Your task to perform on an android device: remove spam from my inbox in the gmail app Image 0: 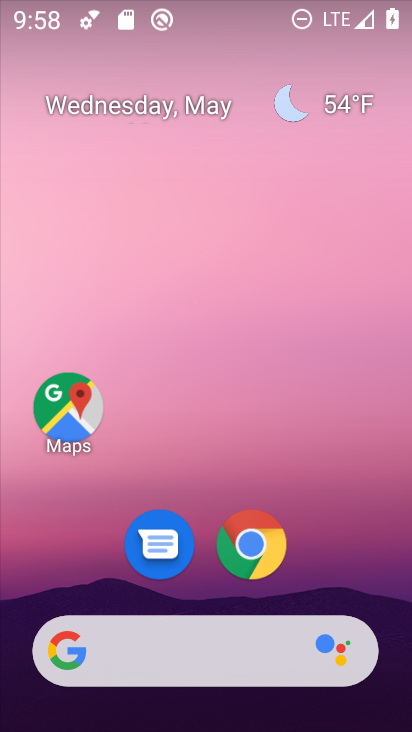
Step 0: drag from (197, 584) to (197, 227)
Your task to perform on an android device: remove spam from my inbox in the gmail app Image 1: 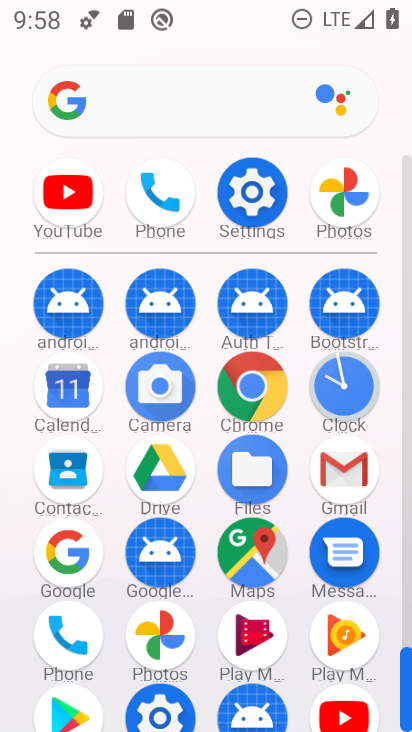
Step 1: click (351, 457)
Your task to perform on an android device: remove spam from my inbox in the gmail app Image 2: 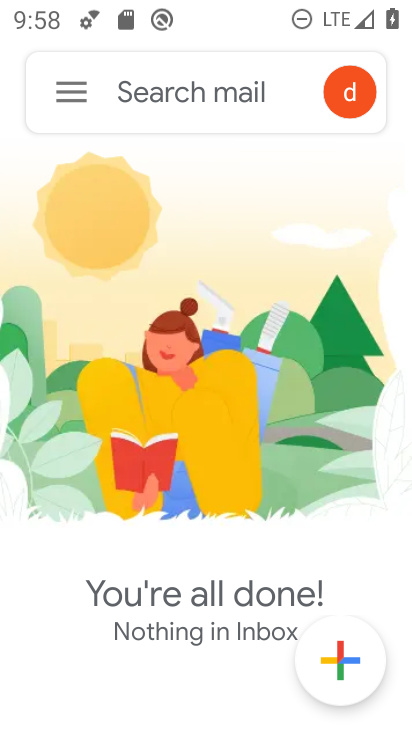
Step 2: click (78, 96)
Your task to perform on an android device: remove spam from my inbox in the gmail app Image 3: 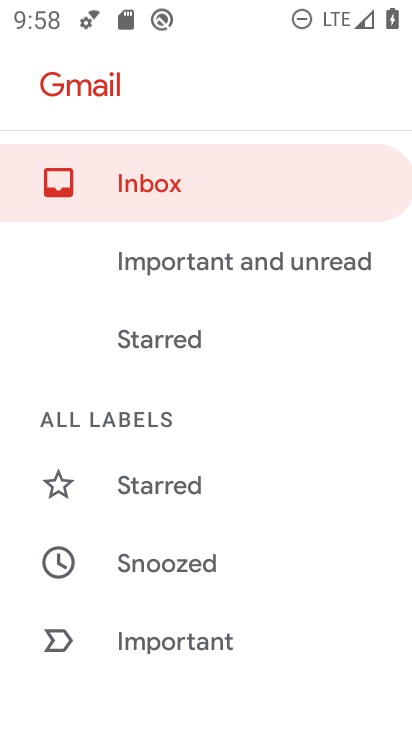
Step 3: drag from (203, 611) to (274, 176)
Your task to perform on an android device: remove spam from my inbox in the gmail app Image 4: 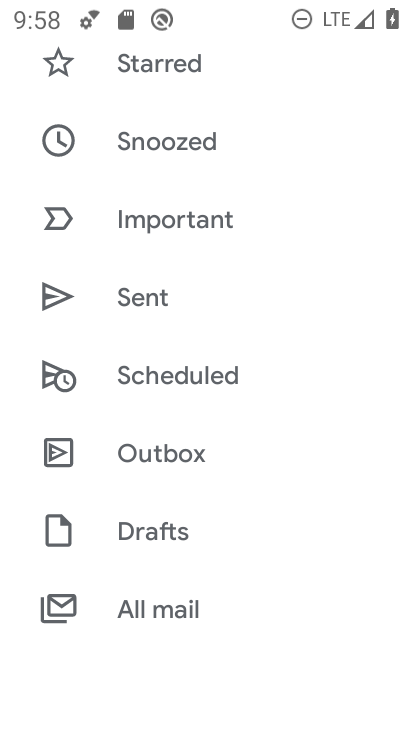
Step 4: drag from (172, 619) to (210, 263)
Your task to perform on an android device: remove spam from my inbox in the gmail app Image 5: 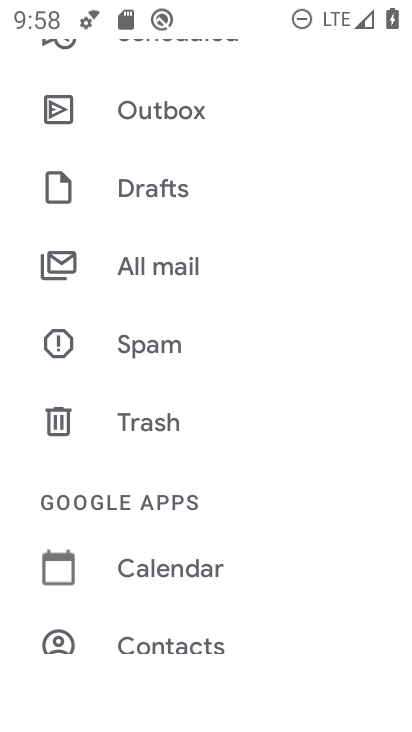
Step 5: click (179, 359)
Your task to perform on an android device: remove spam from my inbox in the gmail app Image 6: 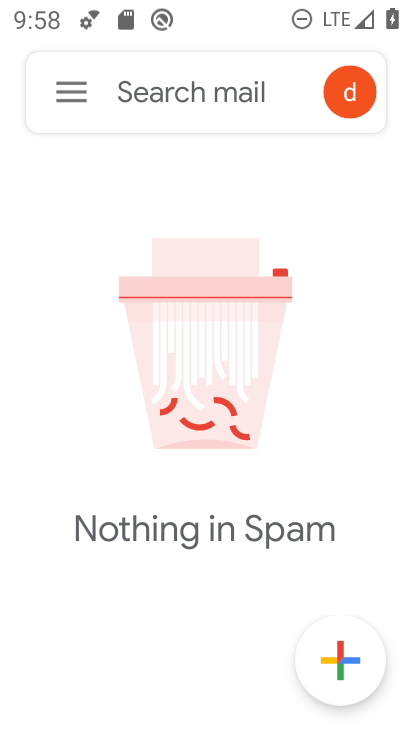
Step 6: task complete